Your task to perform on an android device: add a label to a message in the gmail app Image 0: 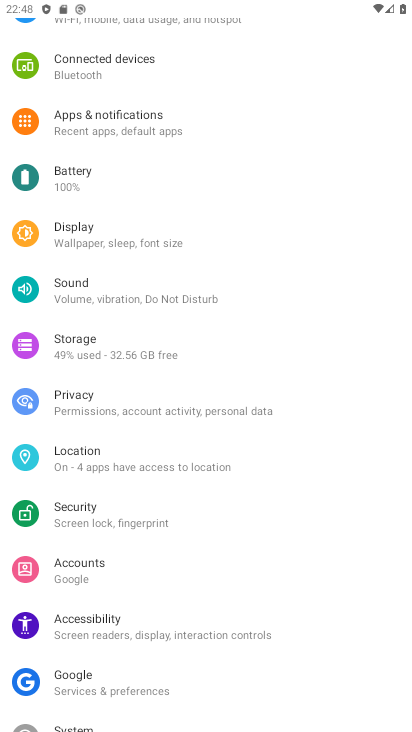
Step 0: press home button
Your task to perform on an android device: add a label to a message in the gmail app Image 1: 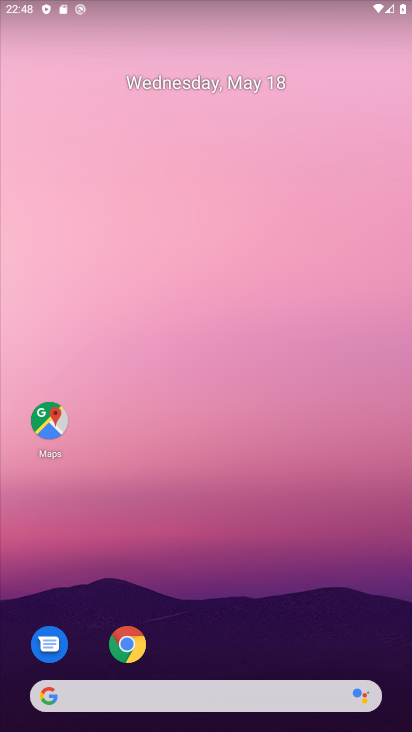
Step 1: drag from (272, 640) to (273, 229)
Your task to perform on an android device: add a label to a message in the gmail app Image 2: 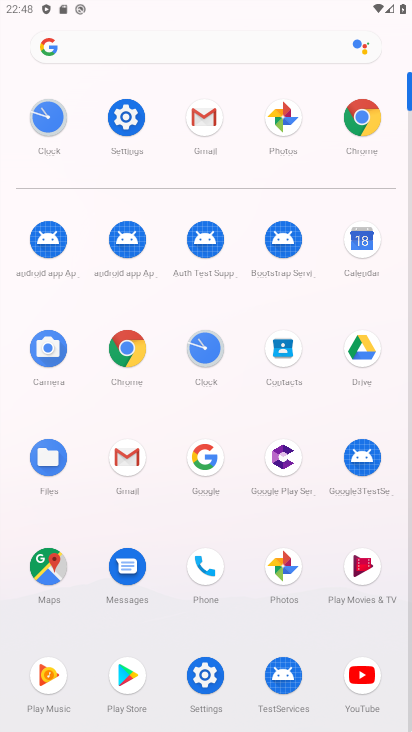
Step 2: click (205, 126)
Your task to perform on an android device: add a label to a message in the gmail app Image 3: 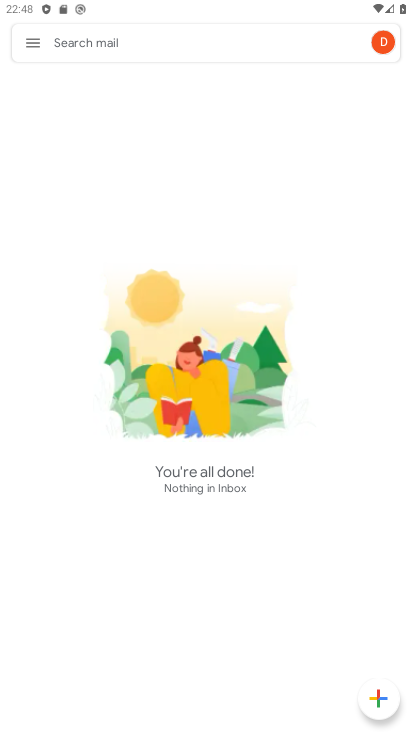
Step 3: click (30, 41)
Your task to perform on an android device: add a label to a message in the gmail app Image 4: 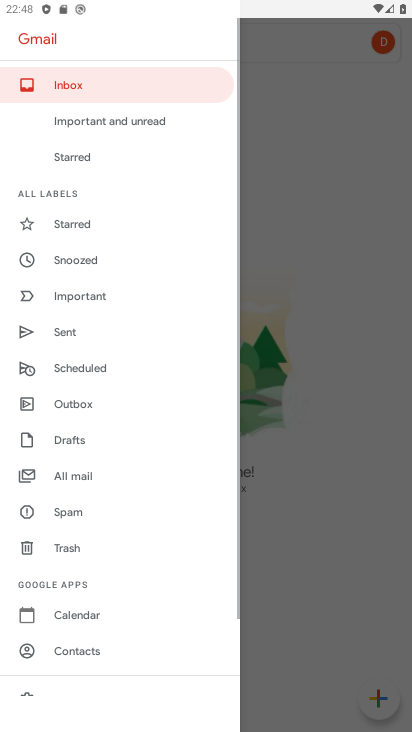
Step 4: drag from (83, 534) to (124, 304)
Your task to perform on an android device: add a label to a message in the gmail app Image 5: 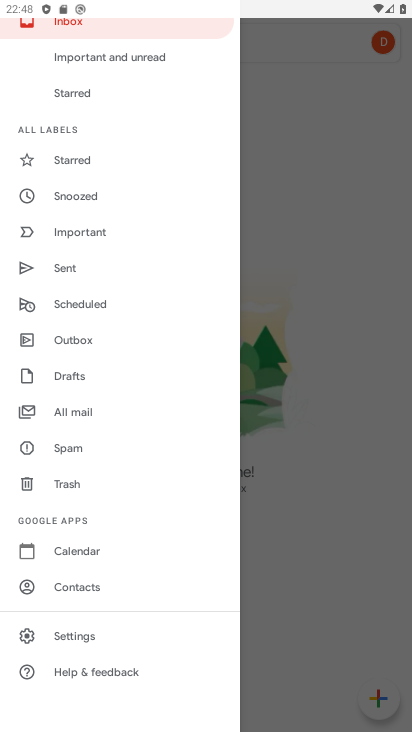
Step 5: drag from (81, 324) to (139, 575)
Your task to perform on an android device: add a label to a message in the gmail app Image 6: 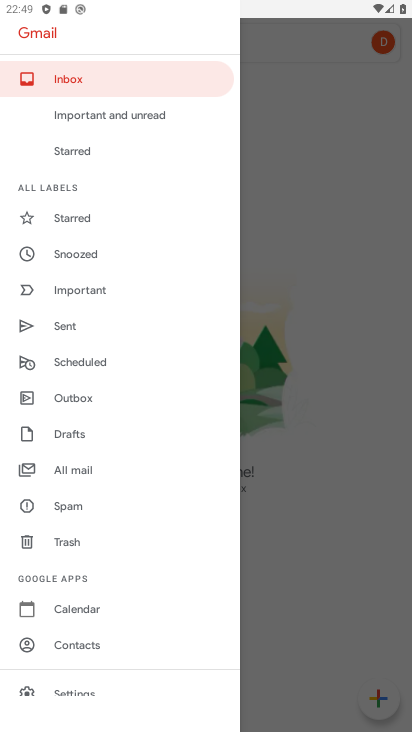
Step 6: drag from (53, 486) to (126, 191)
Your task to perform on an android device: add a label to a message in the gmail app Image 7: 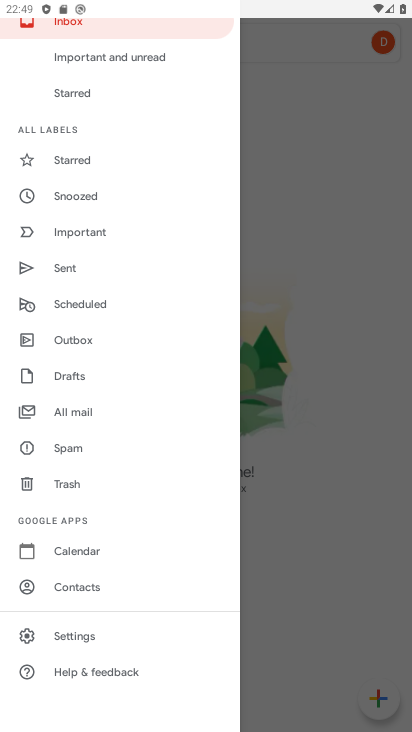
Step 7: click (71, 405)
Your task to perform on an android device: add a label to a message in the gmail app Image 8: 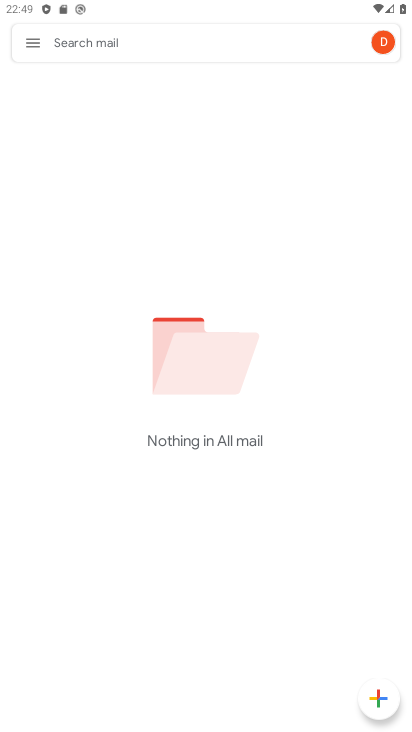
Step 8: task complete